Your task to perform on an android device: find photos in the google photos app Image 0: 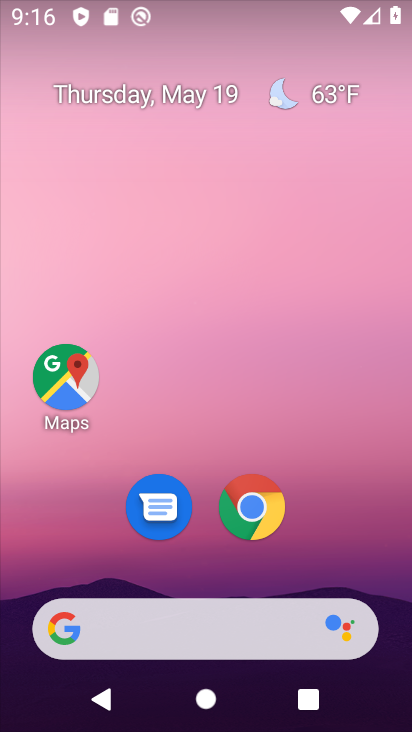
Step 0: drag from (390, 588) to (396, 203)
Your task to perform on an android device: find photos in the google photos app Image 1: 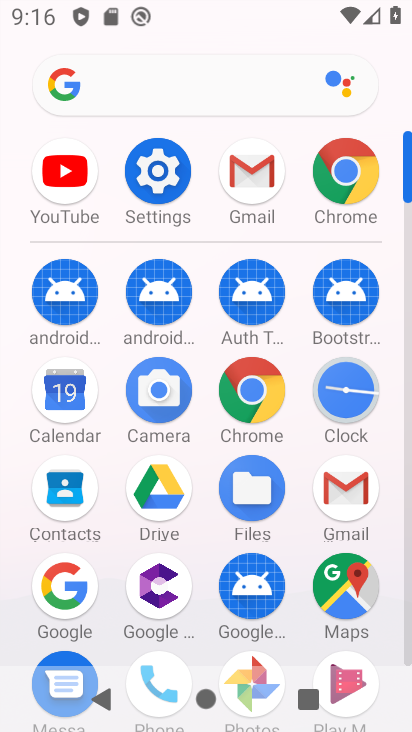
Step 1: click (258, 655)
Your task to perform on an android device: find photos in the google photos app Image 2: 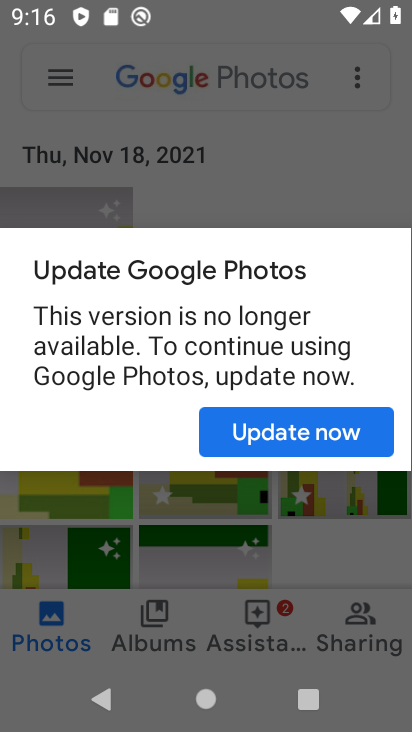
Step 2: click (326, 428)
Your task to perform on an android device: find photos in the google photos app Image 3: 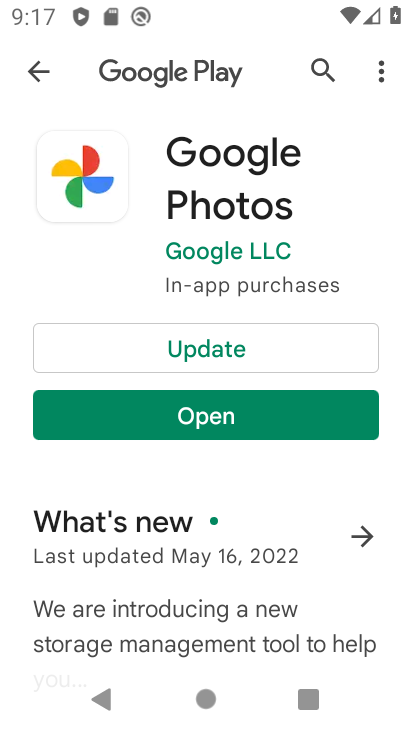
Step 3: click (285, 340)
Your task to perform on an android device: find photos in the google photos app Image 4: 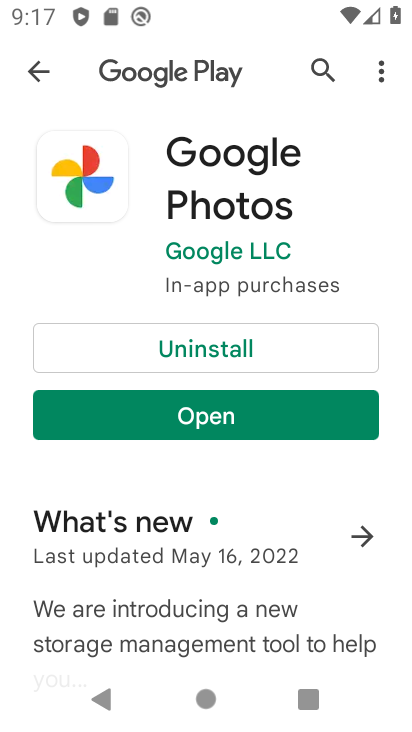
Step 4: click (262, 416)
Your task to perform on an android device: find photos in the google photos app Image 5: 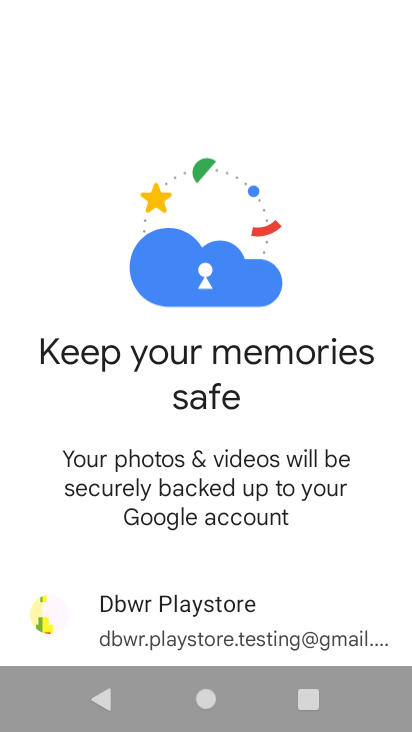
Step 5: drag from (325, 583) to (302, 294)
Your task to perform on an android device: find photos in the google photos app Image 6: 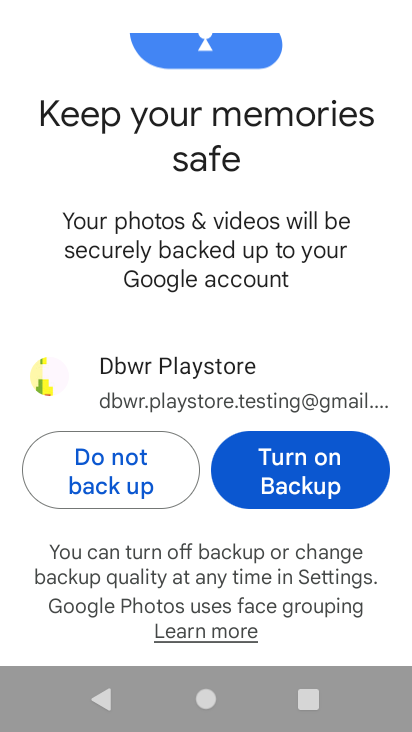
Step 6: click (308, 453)
Your task to perform on an android device: find photos in the google photos app Image 7: 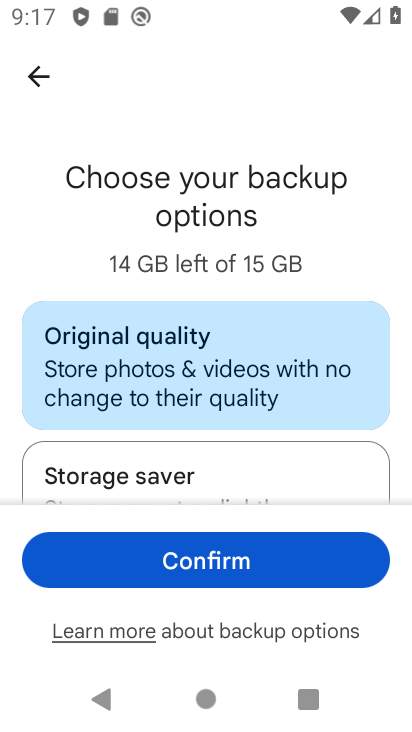
Step 7: click (305, 552)
Your task to perform on an android device: find photos in the google photos app Image 8: 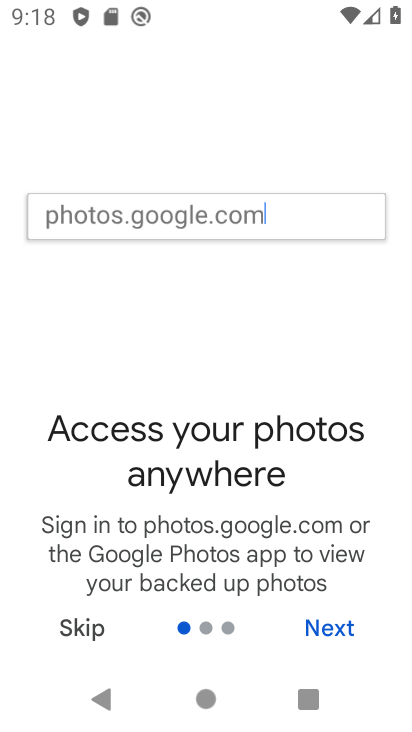
Step 8: click (98, 630)
Your task to perform on an android device: find photos in the google photos app Image 9: 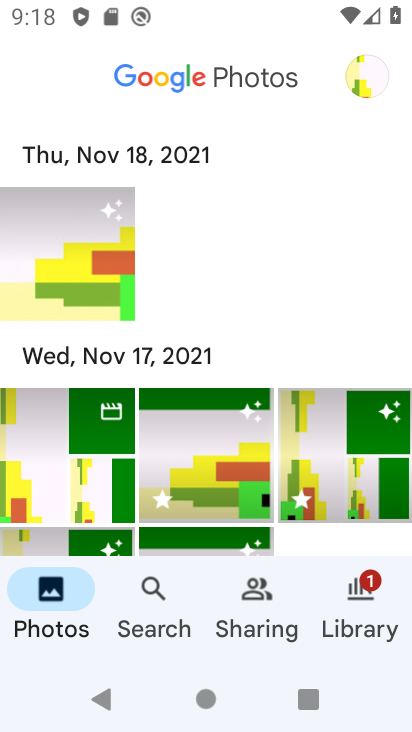
Step 9: task complete